Your task to perform on an android device: check data usage Image 0: 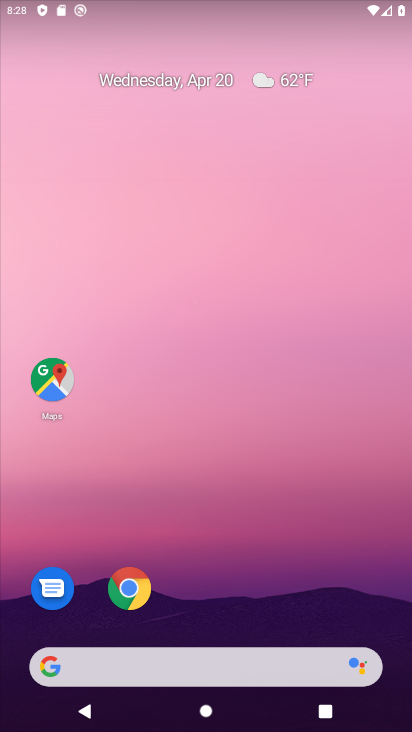
Step 0: drag from (386, 600) to (196, 25)
Your task to perform on an android device: check data usage Image 1: 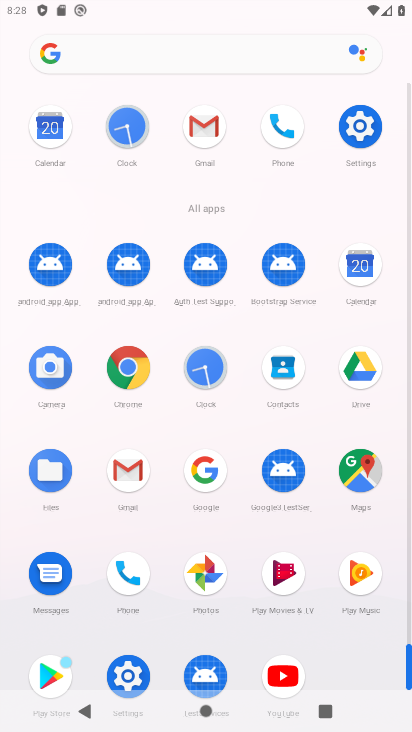
Step 1: click (364, 122)
Your task to perform on an android device: check data usage Image 2: 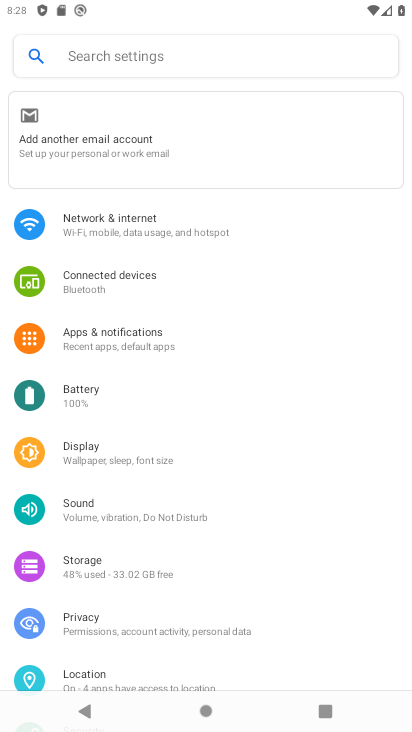
Step 2: click (140, 231)
Your task to perform on an android device: check data usage Image 3: 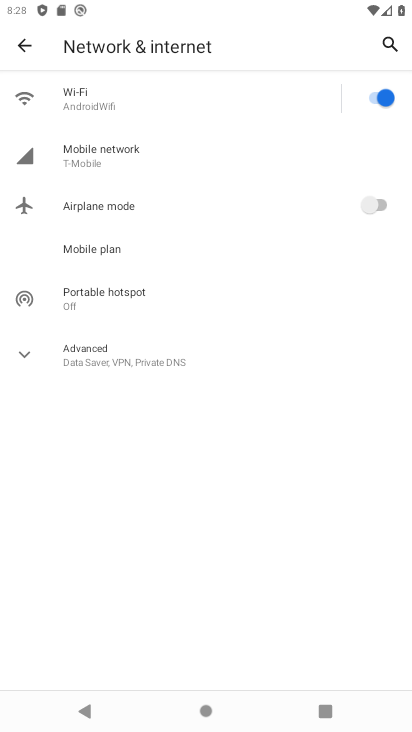
Step 3: click (150, 151)
Your task to perform on an android device: check data usage Image 4: 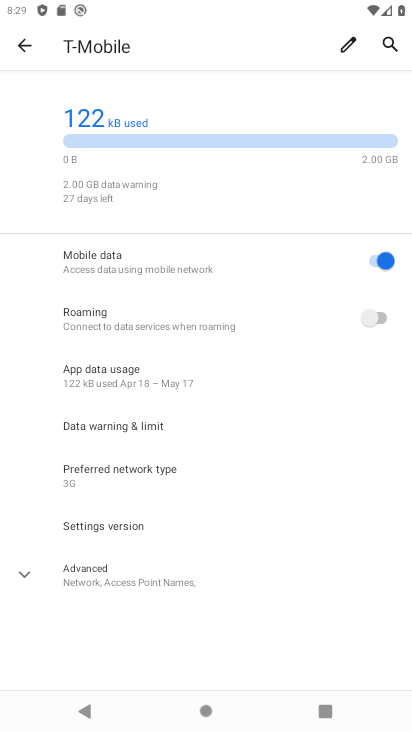
Step 4: task complete